Your task to perform on an android device: Go to sound settings Image 0: 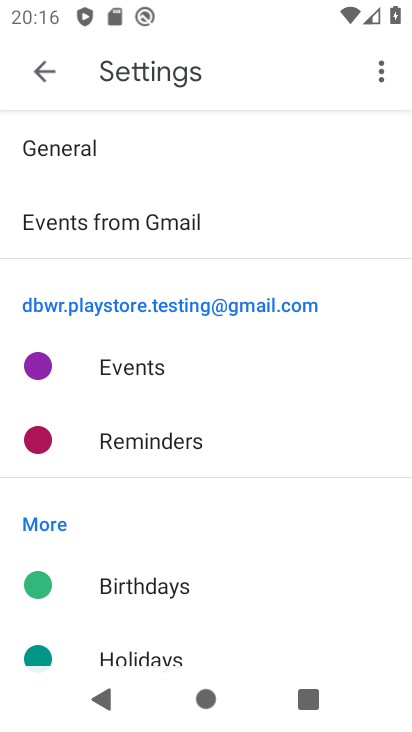
Step 0: press home button
Your task to perform on an android device: Go to sound settings Image 1: 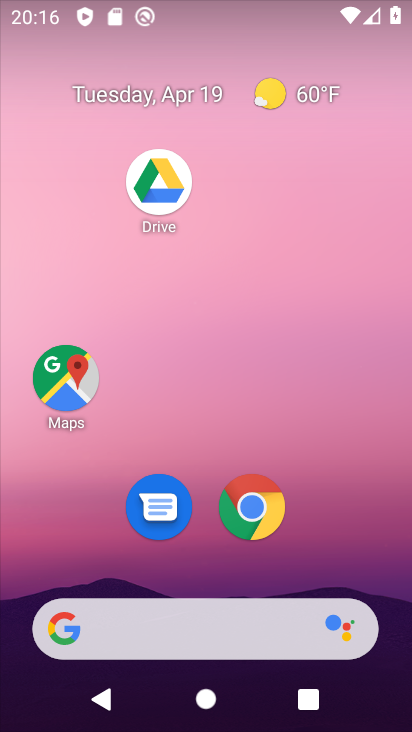
Step 1: drag from (339, 514) to (217, 133)
Your task to perform on an android device: Go to sound settings Image 2: 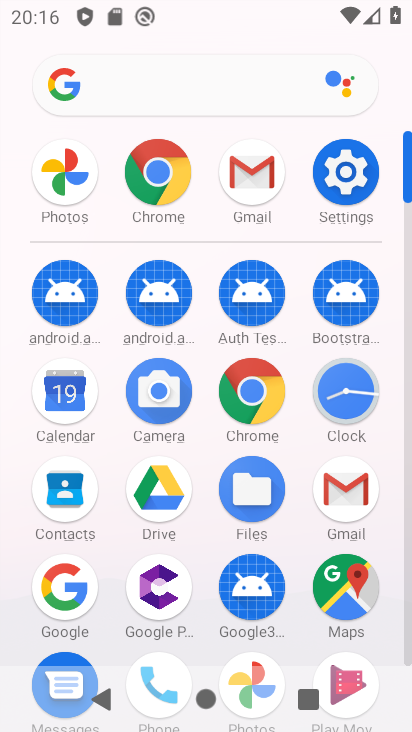
Step 2: click (336, 177)
Your task to perform on an android device: Go to sound settings Image 3: 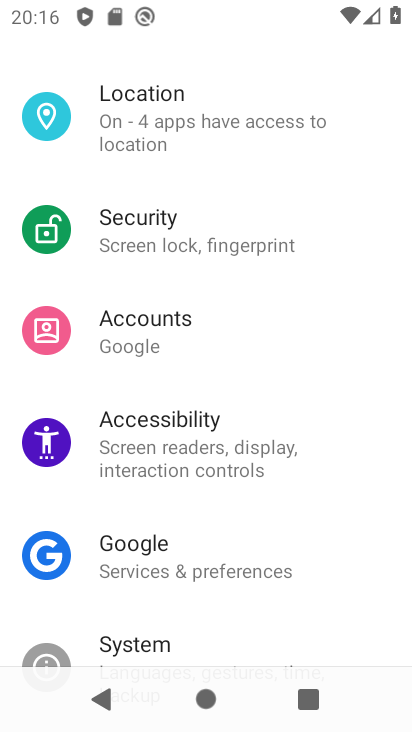
Step 3: drag from (250, 173) to (285, 609)
Your task to perform on an android device: Go to sound settings Image 4: 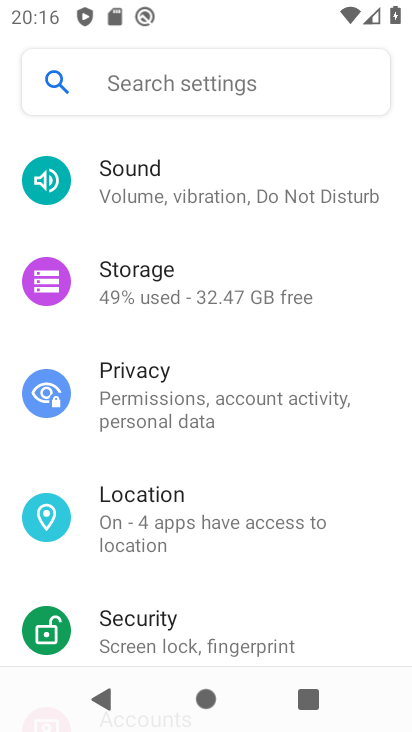
Step 4: click (229, 176)
Your task to perform on an android device: Go to sound settings Image 5: 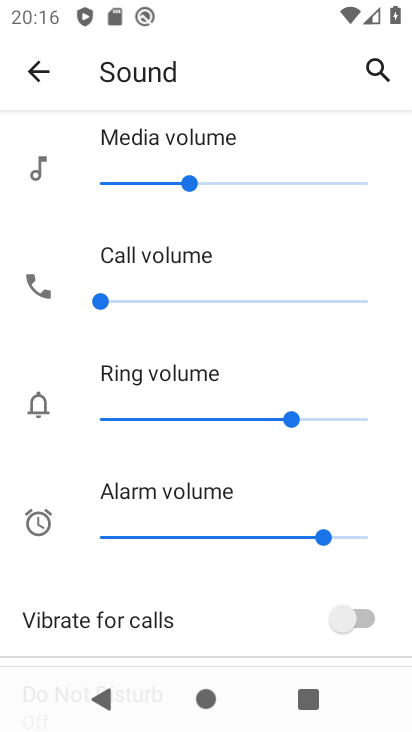
Step 5: task complete